Your task to perform on an android device: check out phone information Image 0: 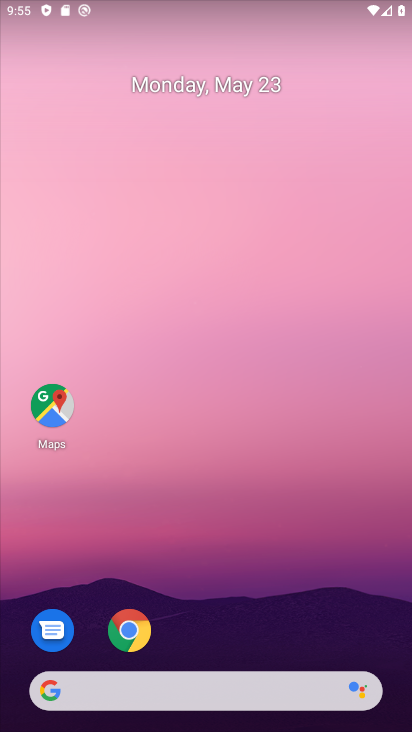
Step 0: drag from (319, 656) to (316, 8)
Your task to perform on an android device: check out phone information Image 1: 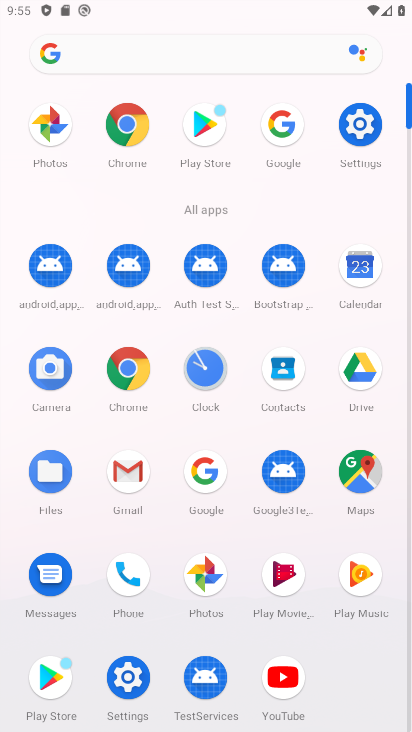
Step 1: click (359, 132)
Your task to perform on an android device: check out phone information Image 2: 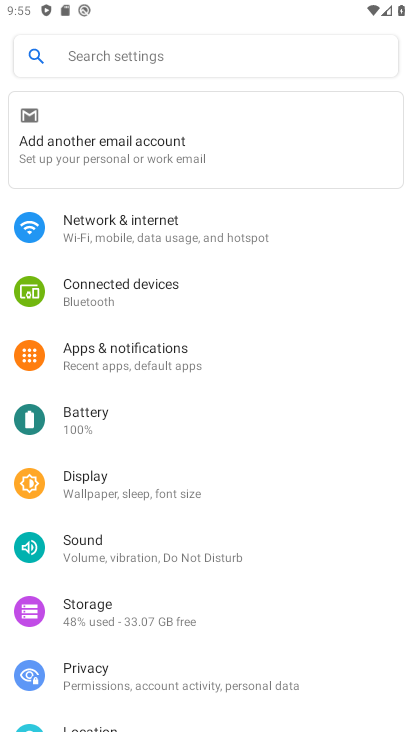
Step 2: drag from (320, 690) to (313, 116)
Your task to perform on an android device: check out phone information Image 3: 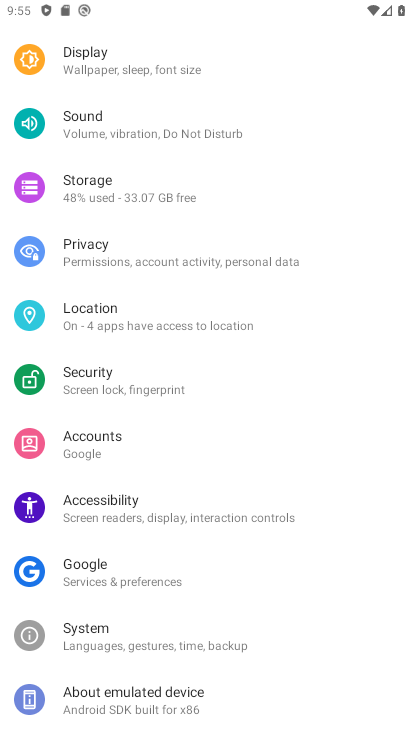
Step 3: click (119, 715)
Your task to perform on an android device: check out phone information Image 4: 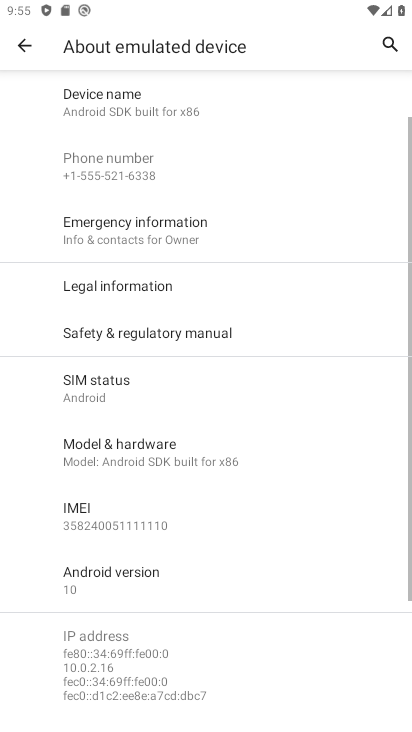
Step 4: task complete